Your task to perform on an android device: View the shopping cart on bestbuy. Search for "razer blade" on bestbuy, select the first entry, add it to the cart, then select checkout. Image 0: 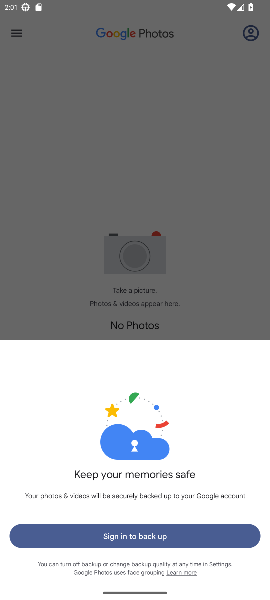
Step 0: press home button
Your task to perform on an android device: View the shopping cart on bestbuy. Search for "razer blade" on bestbuy, select the first entry, add it to the cart, then select checkout. Image 1: 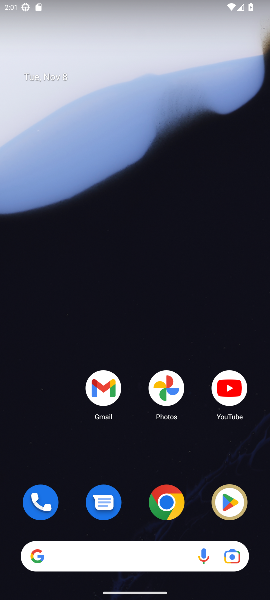
Step 1: drag from (131, 545) to (139, 140)
Your task to perform on an android device: View the shopping cart on bestbuy. Search for "razer blade" on bestbuy, select the first entry, add it to the cart, then select checkout. Image 2: 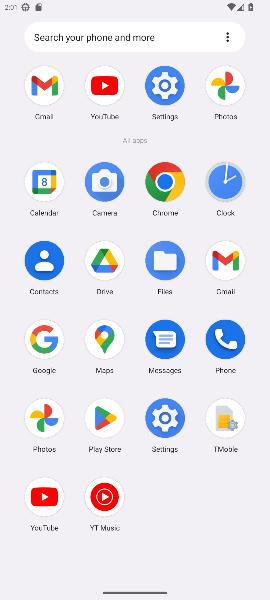
Step 2: click (48, 335)
Your task to perform on an android device: View the shopping cart on bestbuy. Search for "razer blade" on bestbuy, select the first entry, add it to the cart, then select checkout. Image 3: 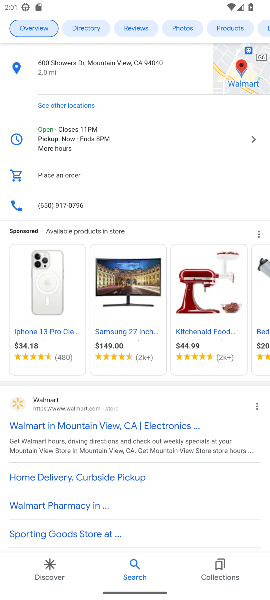
Step 3: drag from (129, 60) to (180, 536)
Your task to perform on an android device: View the shopping cart on bestbuy. Search for "razer blade" on bestbuy, select the first entry, add it to the cart, then select checkout. Image 4: 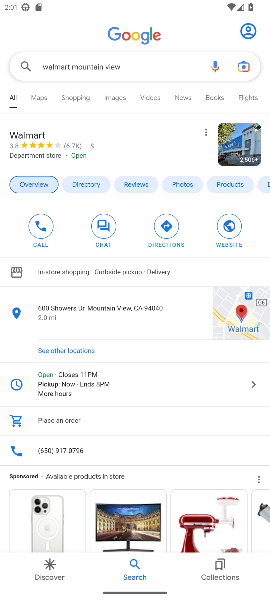
Step 4: click (145, 59)
Your task to perform on an android device: View the shopping cart on bestbuy. Search for "razer blade" on bestbuy, select the first entry, add it to the cart, then select checkout. Image 5: 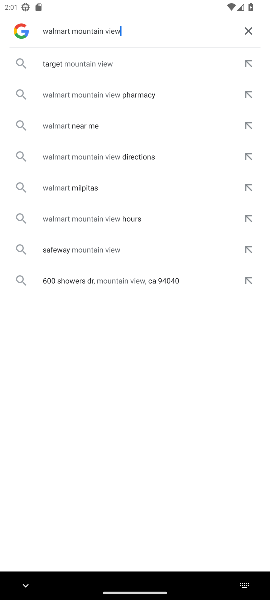
Step 5: click (251, 31)
Your task to perform on an android device: View the shopping cart on bestbuy. Search for "razer blade" on bestbuy, select the first entry, add it to the cart, then select checkout. Image 6: 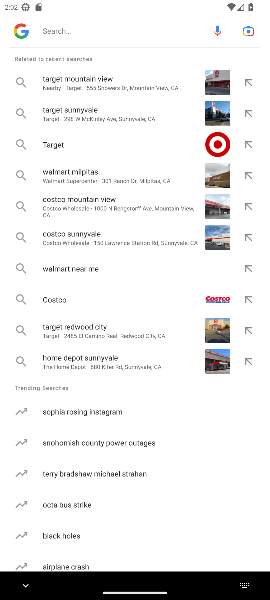
Step 6: click (71, 28)
Your task to perform on an android device: View the shopping cart on bestbuy. Search for "razer blade" on bestbuy, select the first entry, add it to the cart, then select checkout. Image 7: 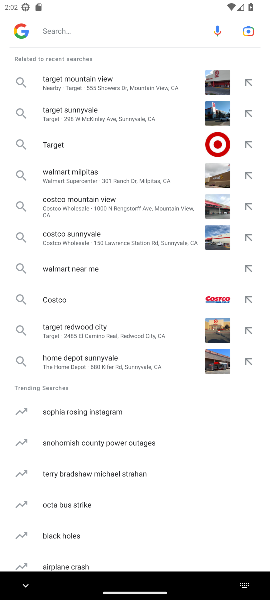
Step 7: type "bestbuy "
Your task to perform on an android device: View the shopping cart on bestbuy. Search for "razer blade" on bestbuy, select the first entry, add it to the cart, then select checkout. Image 8: 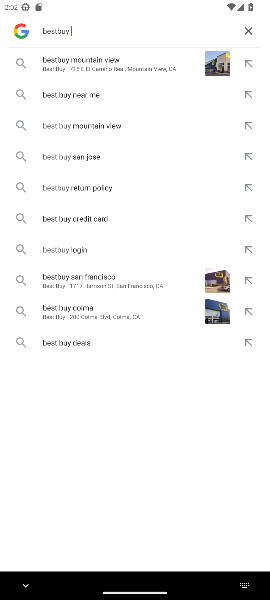
Step 8: click (75, 67)
Your task to perform on an android device: View the shopping cart on bestbuy. Search for "razer blade" on bestbuy, select the first entry, add it to the cart, then select checkout. Image 9: 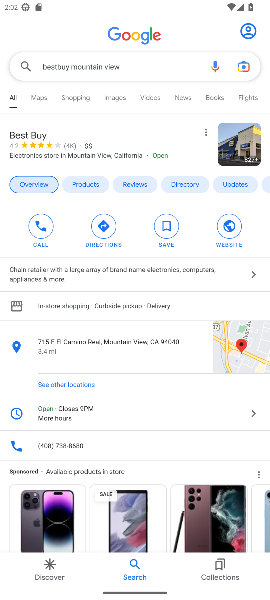
Step 9: drag from (146, 492) to (198, 113)
Your task to perform on an android device: View the shopping cart on bestbuy. Search for "razer blade" on bestbuy, select the first entry, add it to the cart, then select checkout. Image 10: 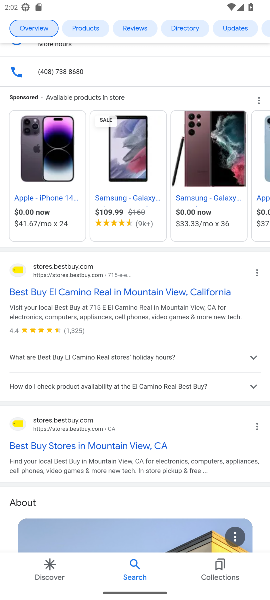
Step 10: click (12, 271)
Your task to perform on an android device: View the shopping cart on bestbuy. Search for "razer blade" on bestbuy, select the first entry, add it to the cart, then select checkout. Image 11: 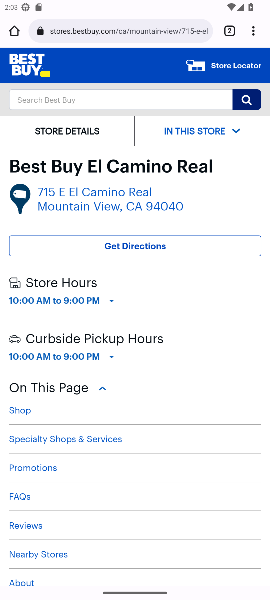
Step 11: click (121, 95)
Your task to perform on an android device: View the shopping cart on bestbuy. Search for "razer blade" on bestbuy, select the first entry, add it to the cart, then select checkout. Image 12: 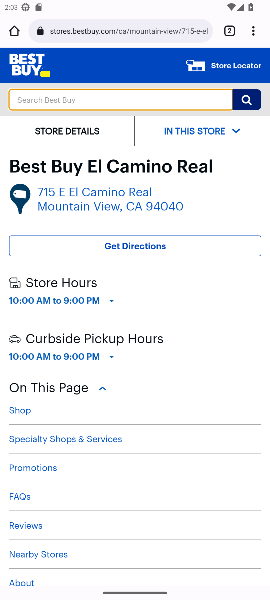
Step 12: type "razer blade "
Your task to perform on an android device: View the shopping cart on bestbuy. Search for "razer blade" on bestbuy, select the first entry, add it to the cart, then select checkout. Image 13: 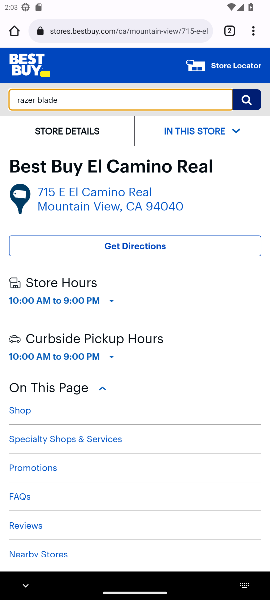
Step 13: click (245, 94)
Your task to perform on an android device: View the shopping cart on bestbuy. Search for "razer blade" on bestbuy, select the first entry, add it to the cart, then select checkout. Image 14: 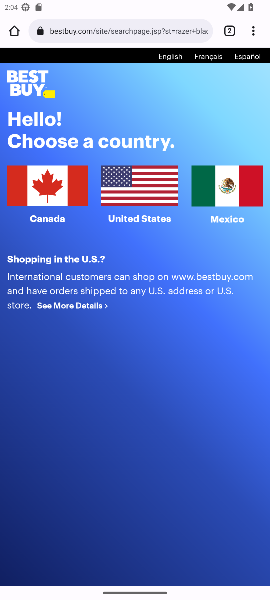
Step 14: click (131, 187)
Your task to perform on an android device: View the shopping cart on bestbuy. Search for "razer blade" on bestbuy, select the first entry, add it to the cart, then select checkout. Image 15: 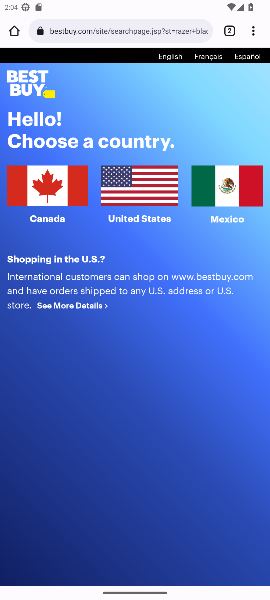
Step 15: click (131, 187)
Your task to perform on an android device: View the shopping cart on bestbuy. Search for "razer blade" on bestbuy, select the first entry, add it to the cart, then select checkout. Image 16: 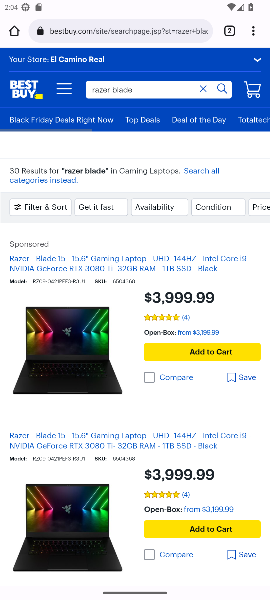
Step 16: click (180, 345)
Your task to perform on an android device: View the shopping cart on bestbuy. Search for "razer blade" on bestbuy, select the first entry, add it to the cart, then select checkout. Image 17: 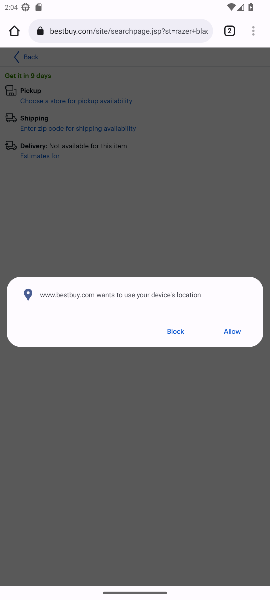
Step 17: click (242, 334)
Your task to perform on an android device: View the shopping cart on bestbuy. Search for "razer blade" on bestbuy, select the first entry, add it to the cart, then select checkout. Image 18: 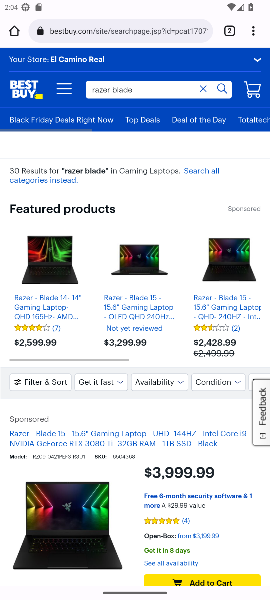
Step 18: drag from (200, 563) to (218, 306)
Your task to perform on an android device: View the shopping cart on bestbuy. Search for "razer blade" on bestbuy, select the first entry, add it to the cart, then select checkout. Image 19: 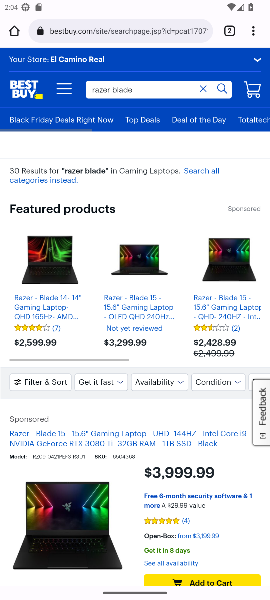
Step 19: click (189, 579)
Your task to perform on an android device: View the shopping cart on bestbuy. Search for "razer blade" on bestbuy, select the first entry, add it to the cart, then select checkout. Image 20: 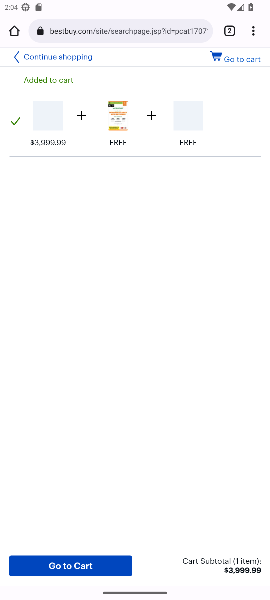
Step 20: task complete